Your task to perform on an android device: see sites visited before in the chrome app Image 0: 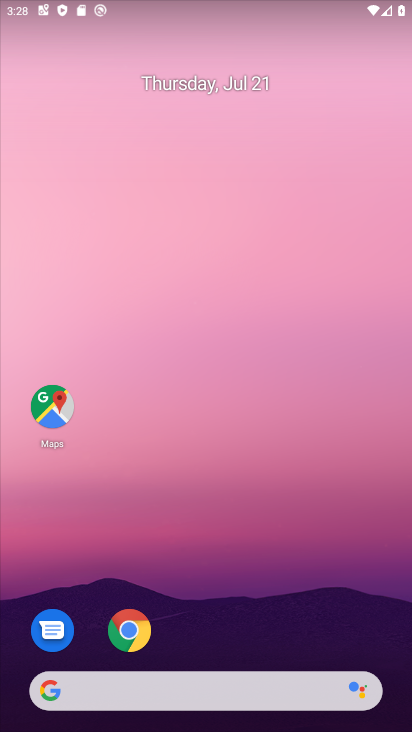
Step 0: drag from (209, 678) to (185, 70)
Your task to perform on an android device: see sites visited before in the chrome app Image 1: 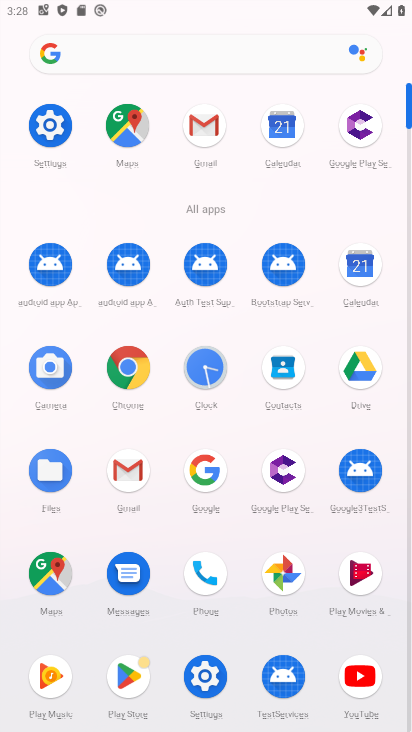
Step 1: click (118, 364)
Your task to perform on an android device: see sites visited before in the chrome app Image 2: 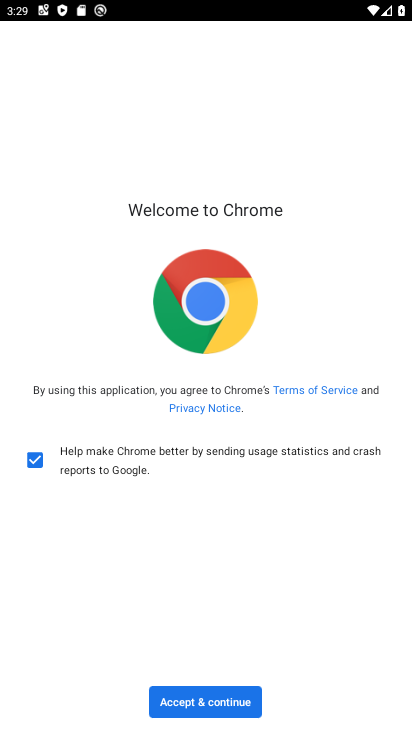
Step 2: click (288, 724)
Your task to perform on an android device: see sites visited before in the chrome app Image 3: 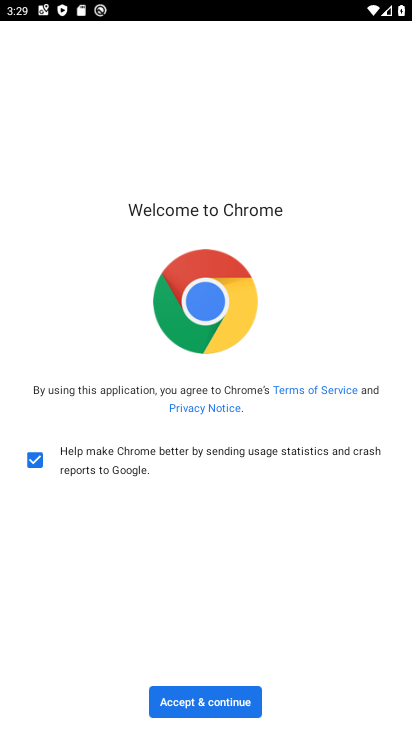
Step 3: click (208, 704)
Your task to perform on an android device: see sites visited before in the chrome app Image 4: 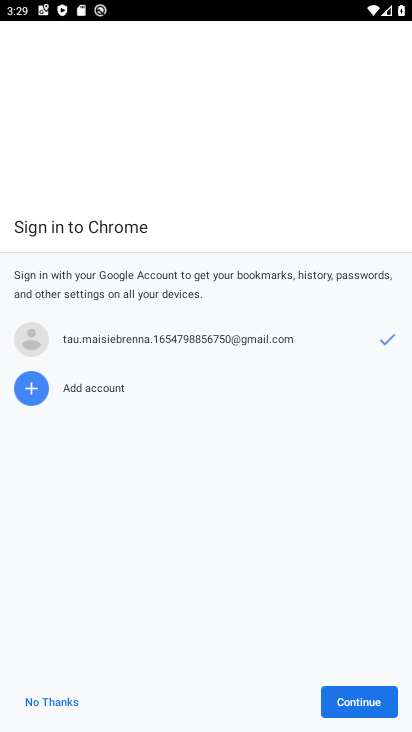
Step 4: click (356, 692)
Your task to perform on an android device: see sites visited before in the chrome app Image 5: 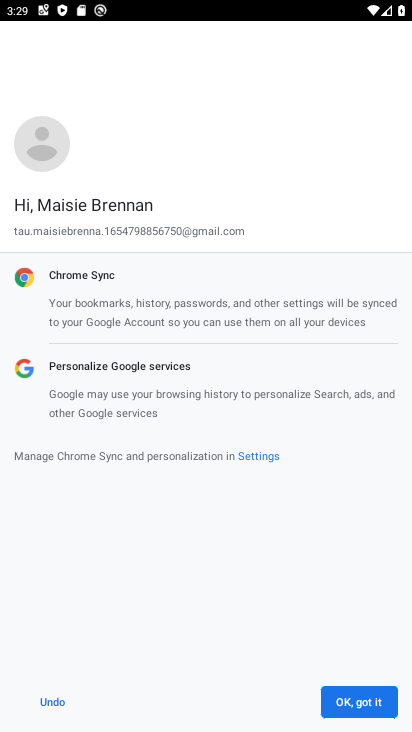
Step 5: click (322, 689)
Your task to perform on an android device: see sites visited before in the chrome app Image 6: 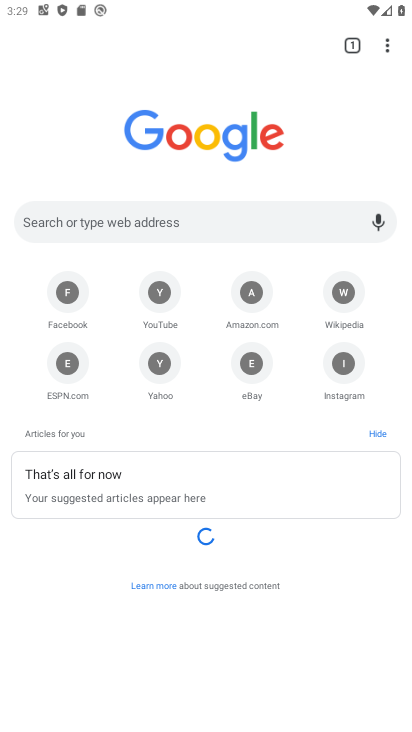
Step 6: task complete